Your task to perform on an android device: change timer sound Image 0: 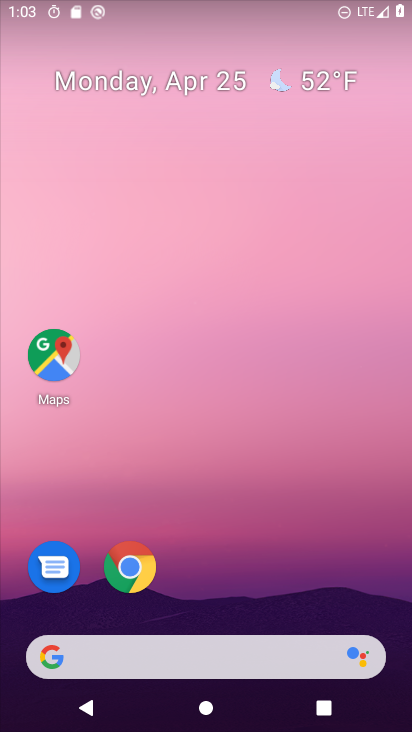
Step 0: drag from (326, 558) to (330, 36)
Your task to perform on an android device: change timer sound Image 1: 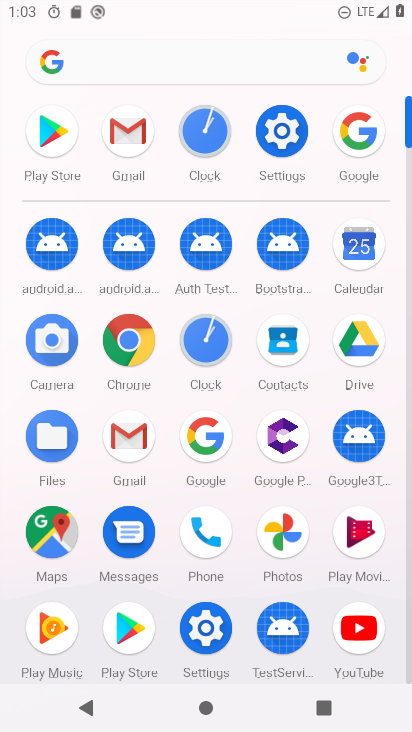
Step 1: click (206, 132)
Your task to perform on an android device: change timer sound Image 2: 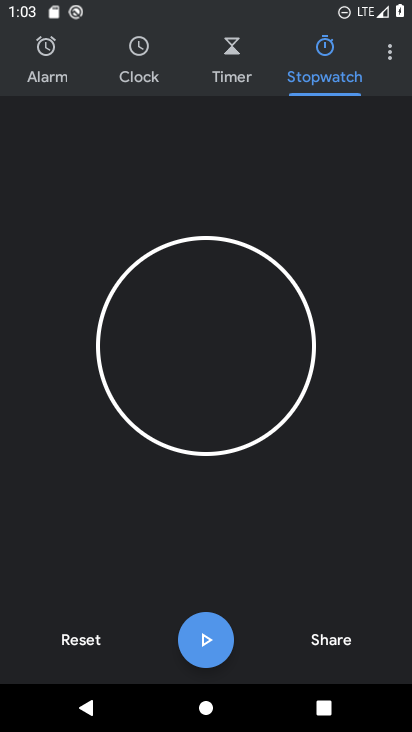
Step 2: click (387, 60)
Your task to perform on an android device: change timer sound Image 3: 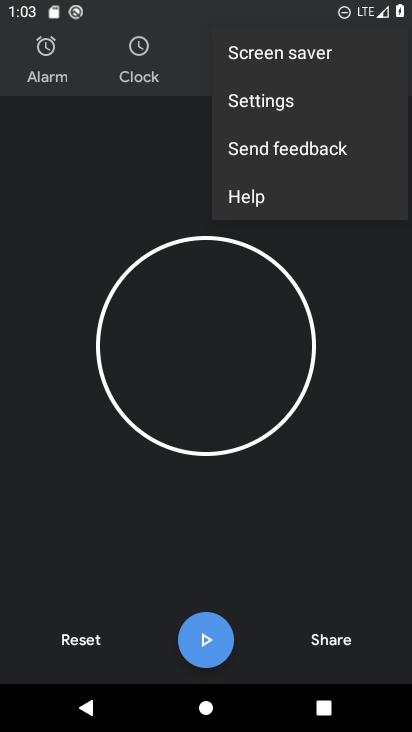
Step 3: click (286, 103)
Your task to perform on an android device: change timer sound Image 4: 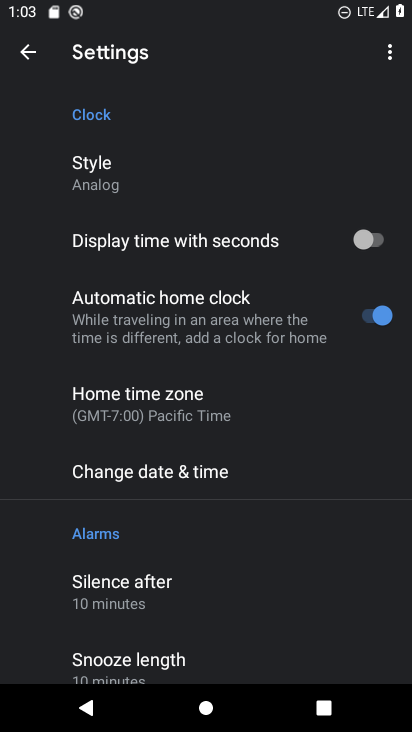
Step 4: drag from (251, 583) to (226, 147)
Your task to perform on an android device: change timer sound Image 5: 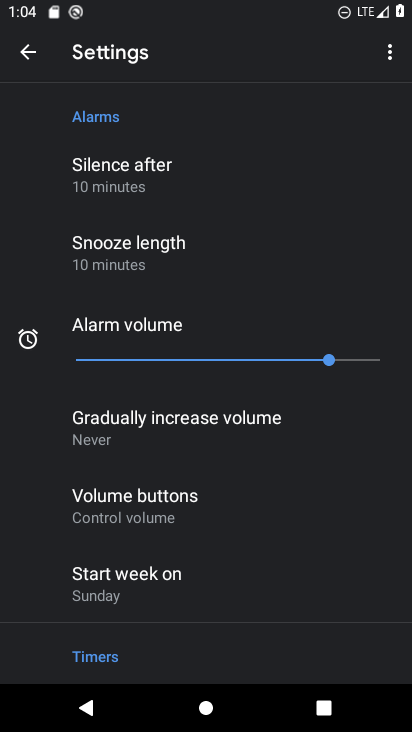
Step 5: drag from (226, 508) to (228, 195)
Your task to perform on an android device: change timer sound Image 6: 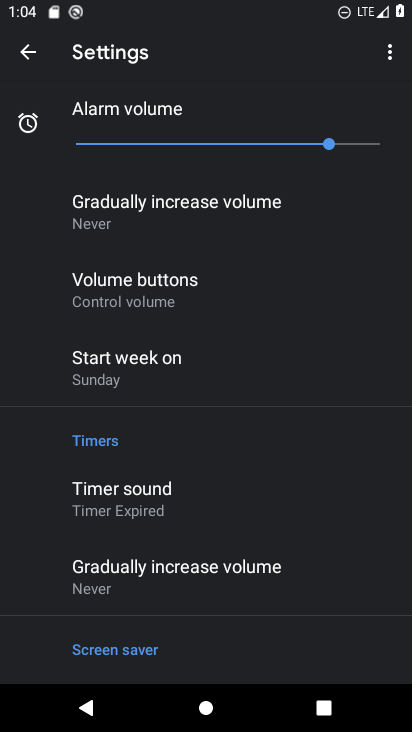
Step 6: click (185, 492)
Your task to perform on an android device: change timer sound Image 7: 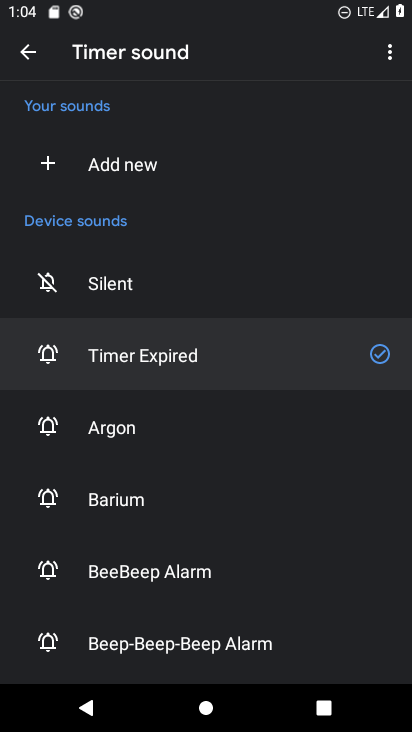
Step 7: click (130, 492)
Your task to perform on an android device: change timer sound Image 8: 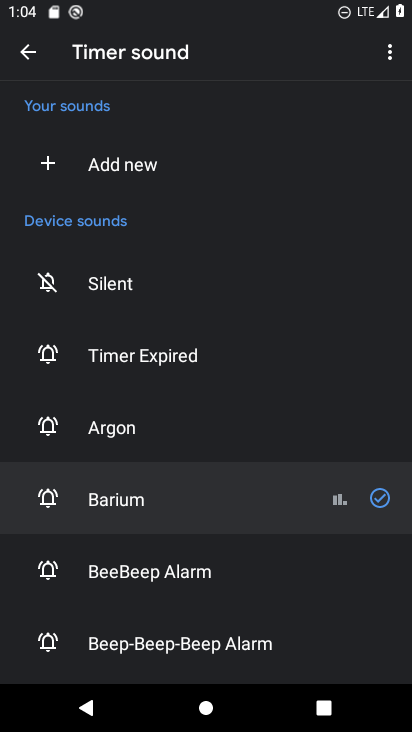
Step 8: task complete